Your task to perform on an android device: Go to wifi settings Image 0: 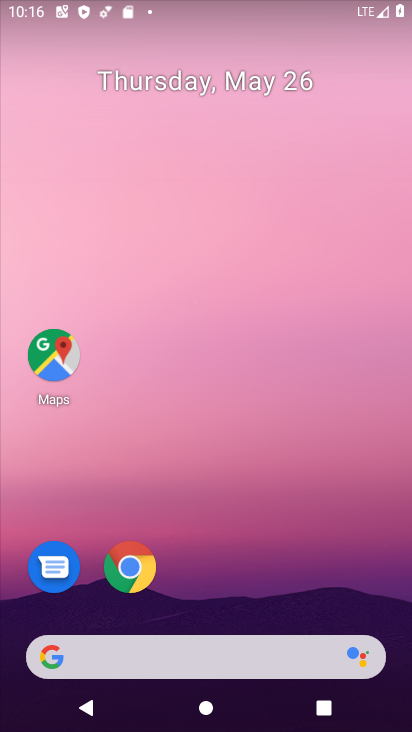
Step 0: drag from (241, 690) to (158, 112)
Your task to perform on an android device: Go to wifi settings Image 1: 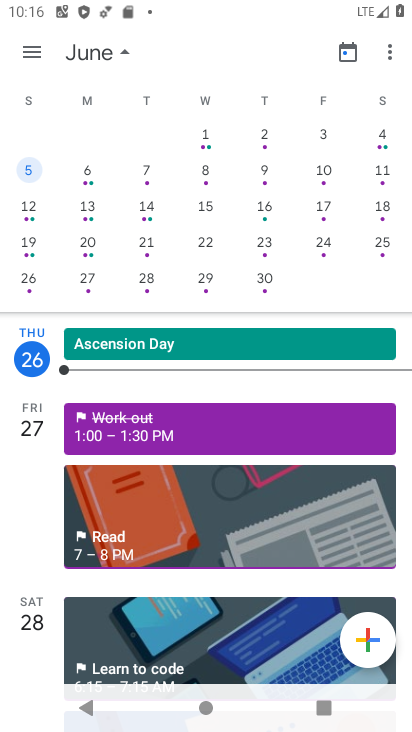
Step 1: press home button
Your task to perform on an android device: Go to wifi settings Image 2: 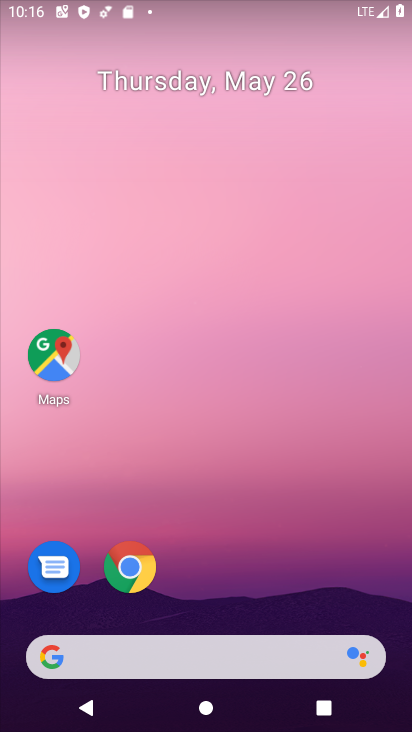
Step 2: drag from (154, 697) to (206, 59)
Your task to perform on an android device: Go to wifi settings Image 3: 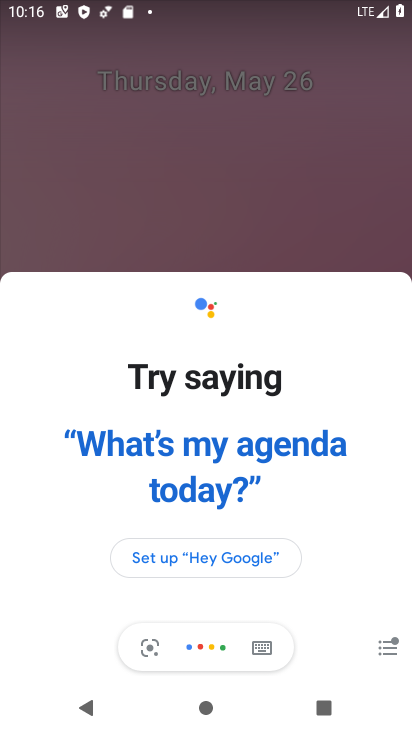
Step 3: press home button
Your task to perform on an android device: Go to wifi settings Image 4: 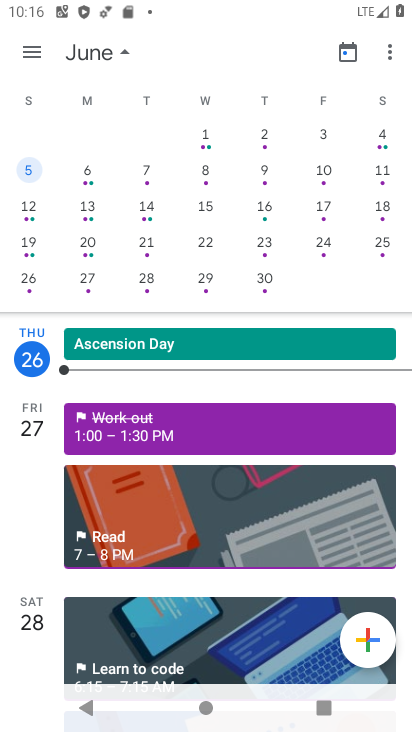
Step 4: press home button
Your task to perform on an android device: Go to wifi settings Image 5: 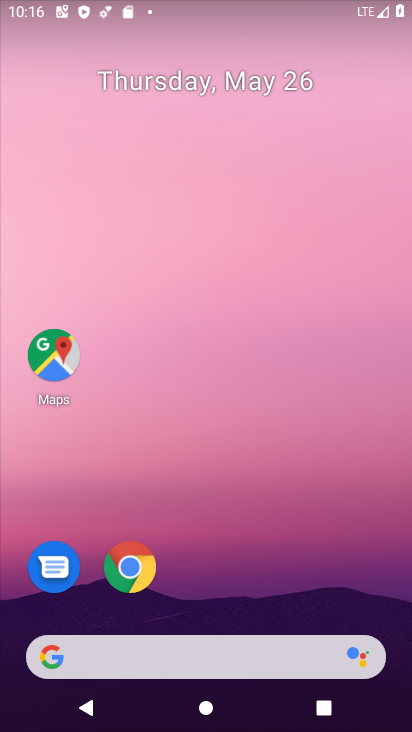
Step 5: click (262, 726)
Your task to perform on an android device: Go to wifi settings Image 6: 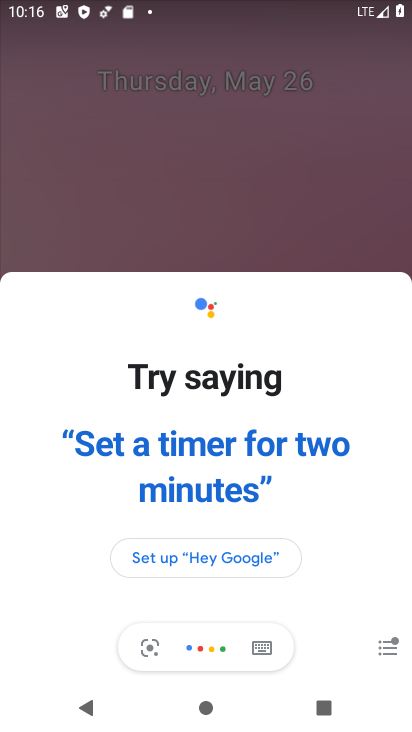
Step 6: press home button
Your task to perform on an android device: Go to wifi settings Image 7: 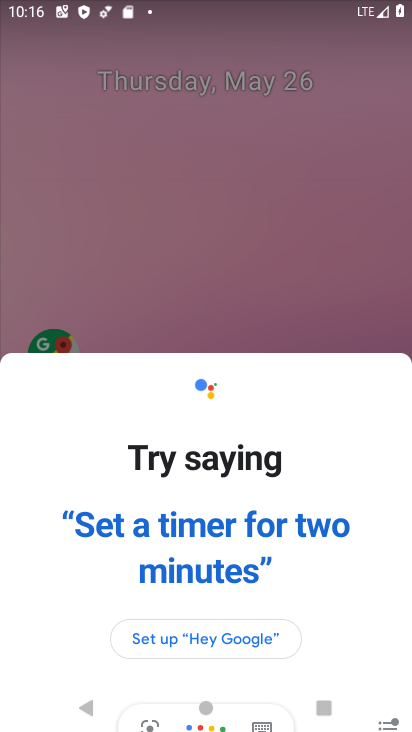
Step 7: drag from (263, 722) to (390, 450)
Your task to perform on an android device: Go to wifi settings Image 8: 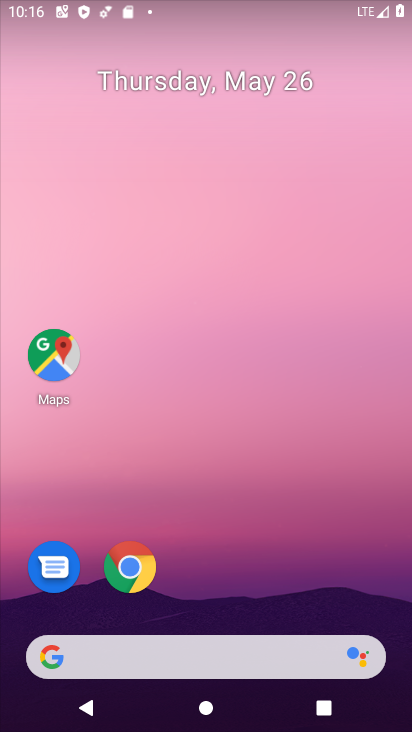
Step 8: drag from (277, 707) to (319, 1)
Your task to perform on an android device: Go to wifi settings Image 9: 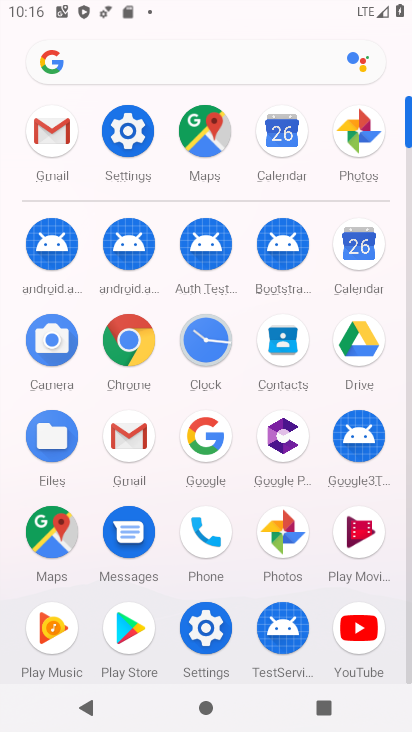
Step 9: click (129, 141)
Your task to perform on an android device: Go to wifi settings Image 10: 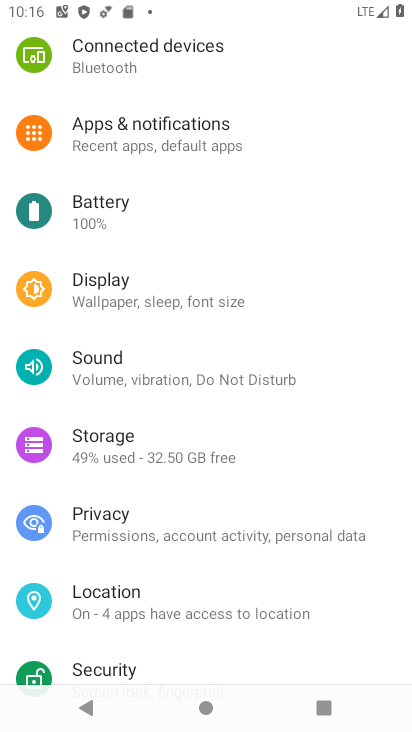
Step 10: drag from (288, 70) to (267, 484)
Your task to perform on an android device: Go to wifi settings Image 11: 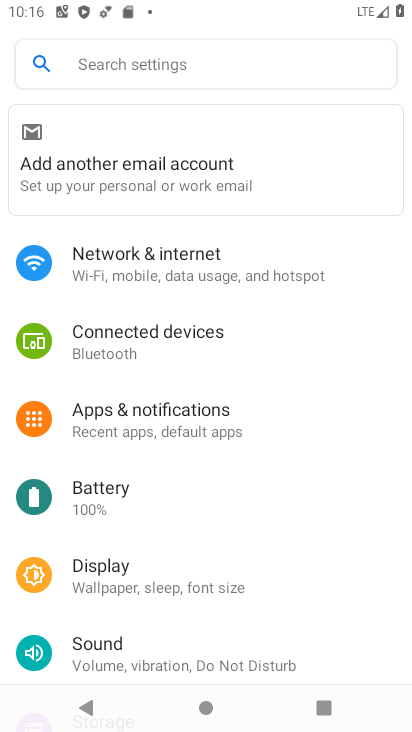
Step 11: click (256, 263)
Your task to perform on an android device: Go to wifi settings Image 12: 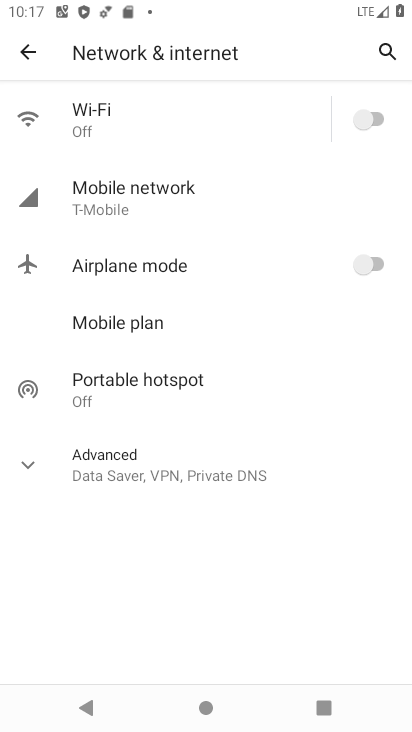
Step 12: click (159, 129)
Your task to perform on an android device: Go to wifi settings Image 13: 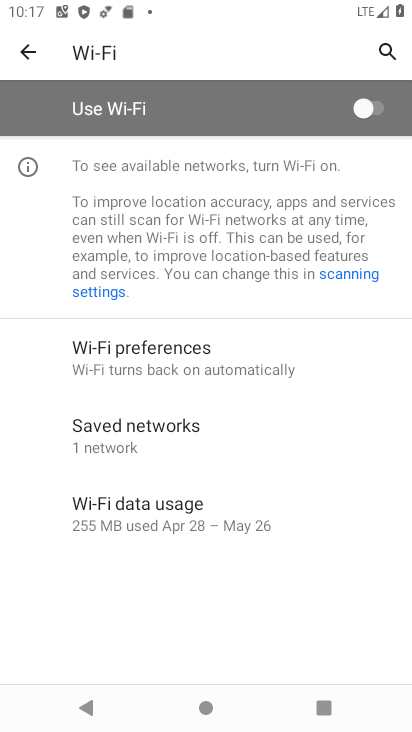
Step 13: task complete